Your task to perform on an android device: turn on the 12-hour format for clock Image 0: 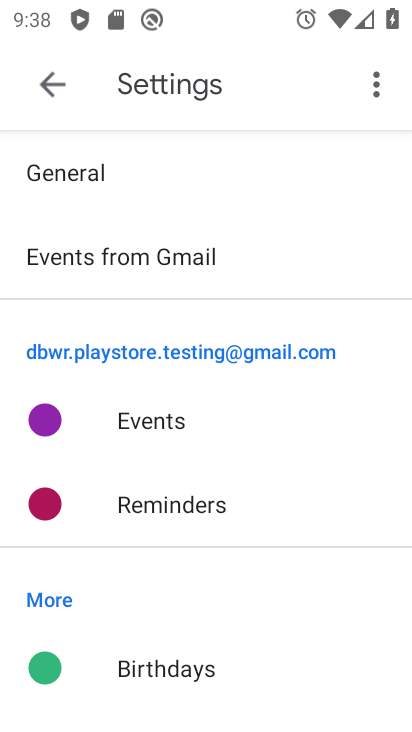
Step 0: press home button
Your task to perform on an android device: turn on the 12-hour format for clock Image 1: 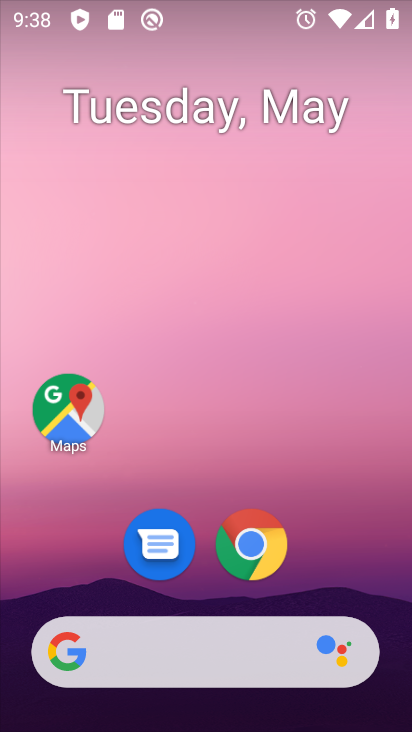
Step 1: drag from (383, 560) to (339, 241)
Your task to perform on an android device: turn on the 12-hour format for clock Image 2: 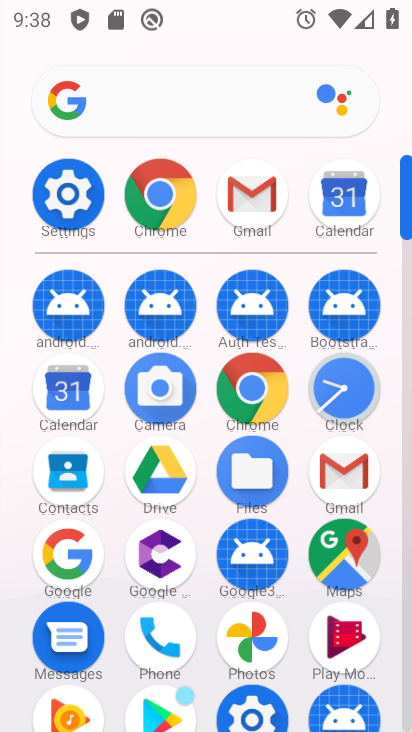
Step 2: drag from (274, 677) to (296, 498)
Your task to perform on an android device: turn on the 12-hour format for clock Image 3: 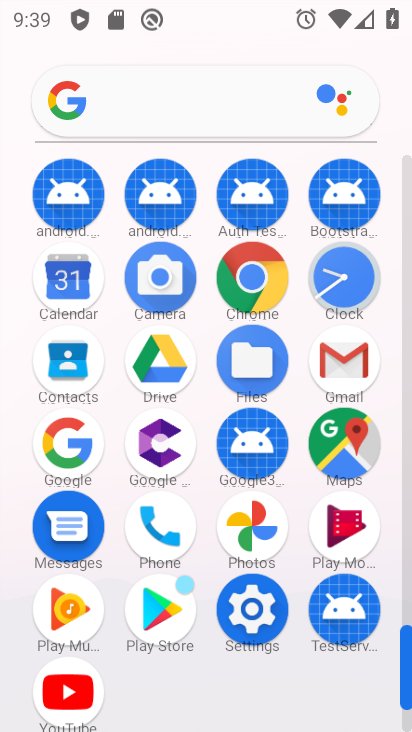
Step 3: click (346, 294)
Your task to perform on an android device: turn on the 12-hour format for clock Image 4: 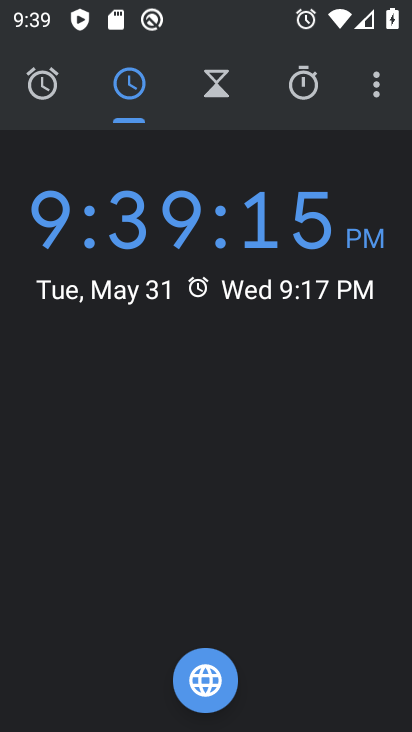
Step 4: click (375, 99)
Your task to perform on an android device: turn on the 12-hour format for clock Image 5: 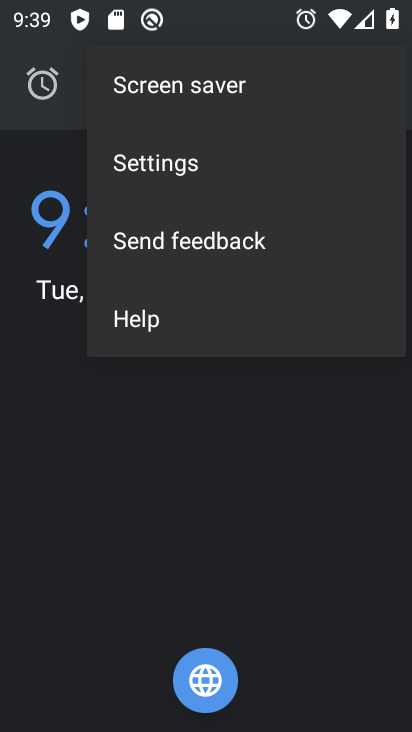
Step 5: click (186, 191)
Your task to perform on an android device: turn on the 12-hour format for clock Image 6: 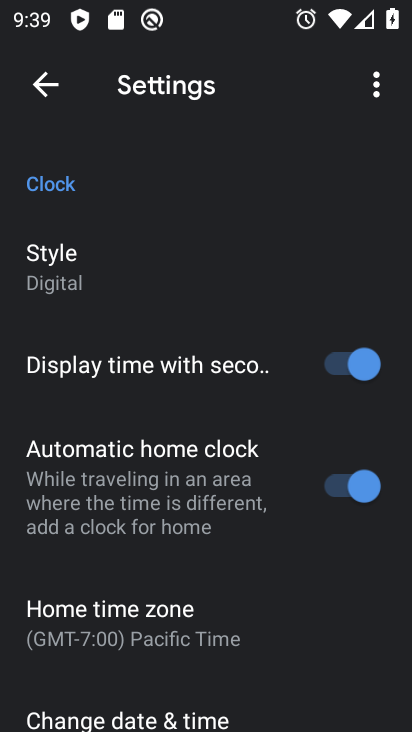
Step 6: drag from (269, 694) to (275, 395)
Your task to perform on an android device: turn on the 12-hour format for clock Image 7: 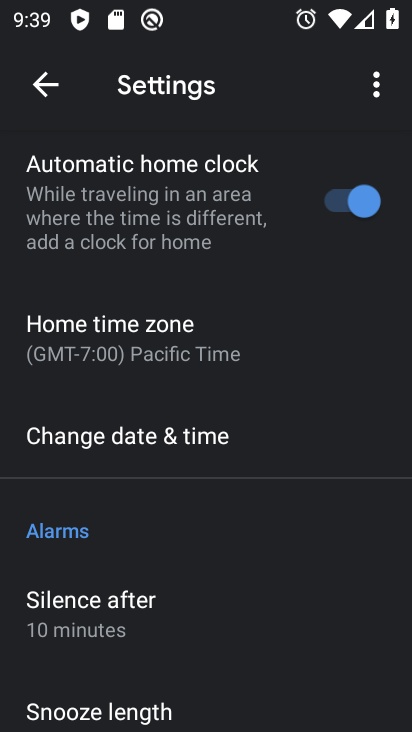
Step 7: click (252, 448)
Your task to perform on an android device: turn on the 12-hour format for clock Image 8: 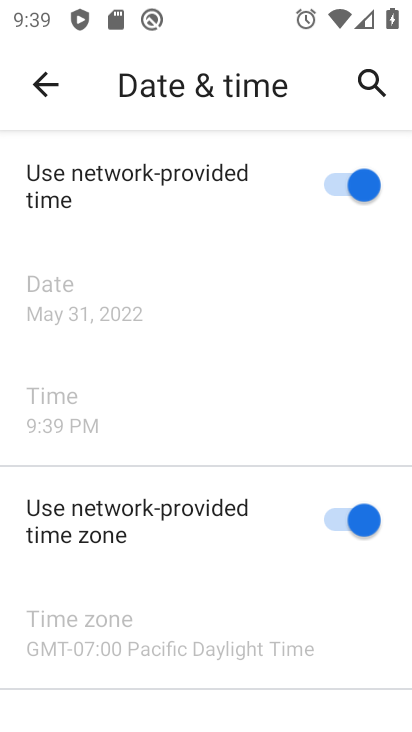
Step 8: task complete